Your task to perform on an android device: Go to accessibility settings Image 0: 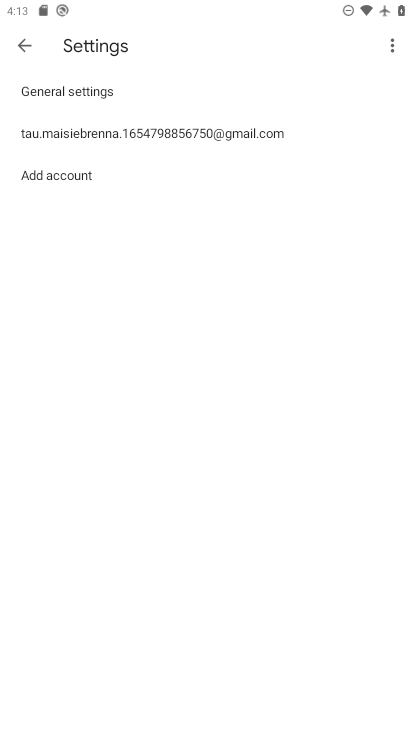
Step 0: press home button
Your task to perform on an android device: Go to accessibility settings Image 1: 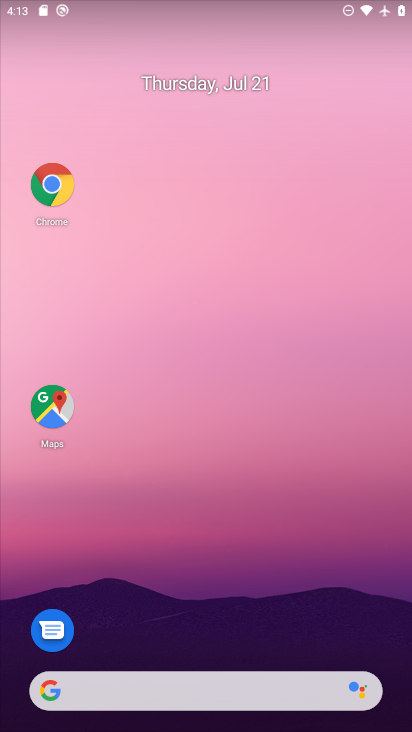
Step 1: drag from (196, 656) to (169, 56)
Your task to perform on an android device: Go to accessibility settings Image 2: 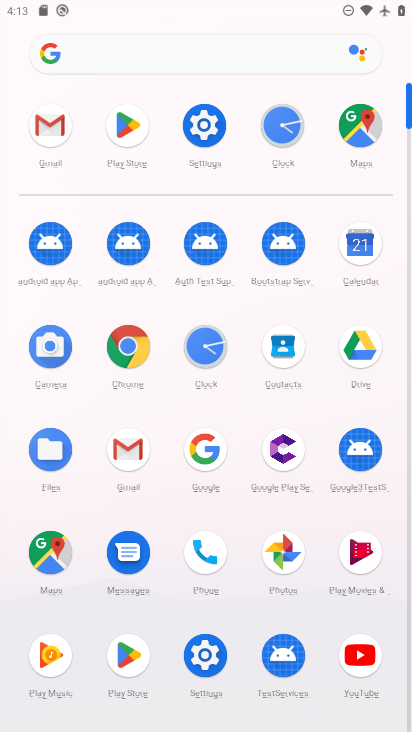
Step 2: click (202, 151)
Your task to perform on an android device: Go to accessibility settings Image 3: 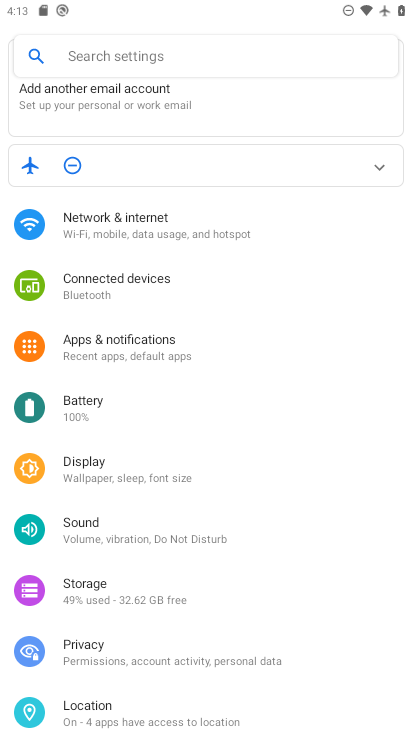
Step 3: drag from (179, 621) to (185, 57)
Your task to perform on an android device: Go to accessibility settings Image 4: 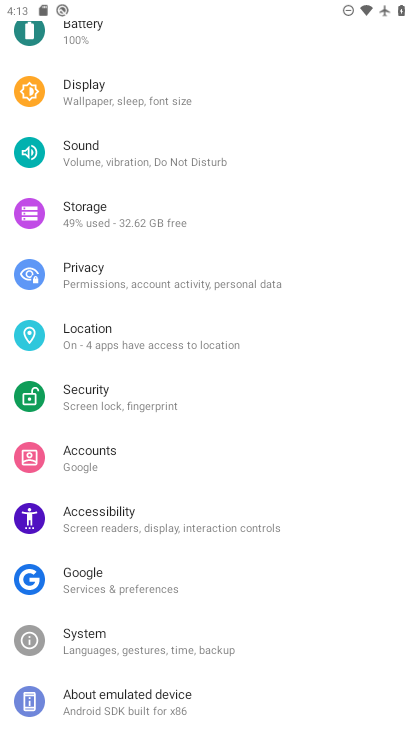
Step 4: click (99, 524)
Your task to perform on an android device: Go to accessibility settings Image 5: 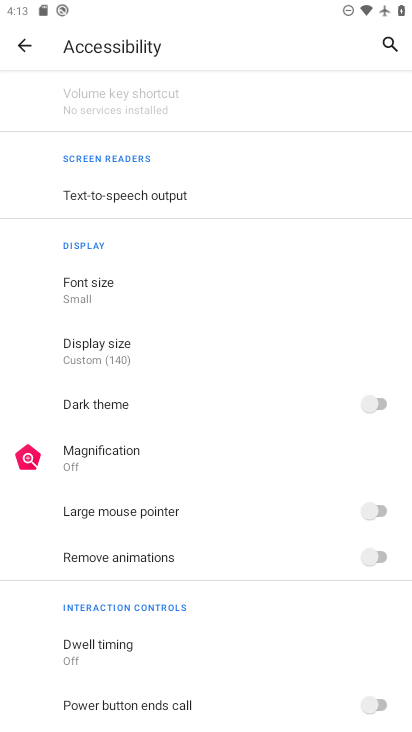
Step 5: task complete